Your task to perform on an android device: Open Google Maps and go to "Timeline" Image 0: 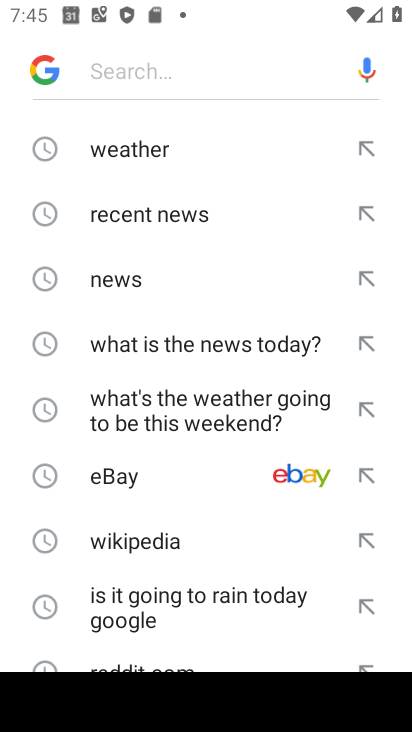
Step 0: press home button
Your task to perform on an android device: Open Google Maps and go to "Timeline" Image 1: 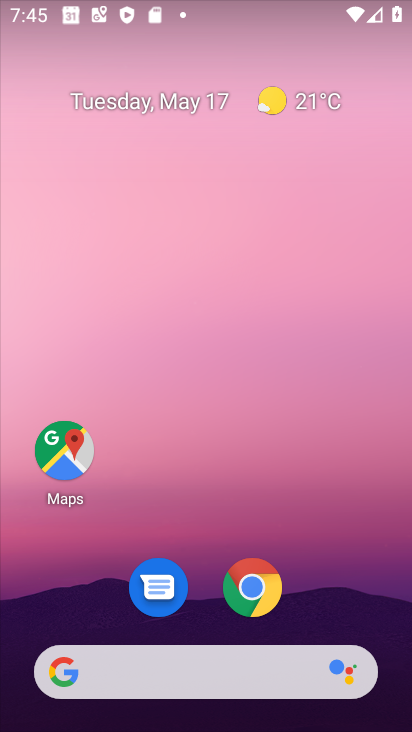
Step 1: drag from (360, 605) to (367, 298)
Your task to perform on an android device: Open Google Maps and go to "Timeline" Image 2: 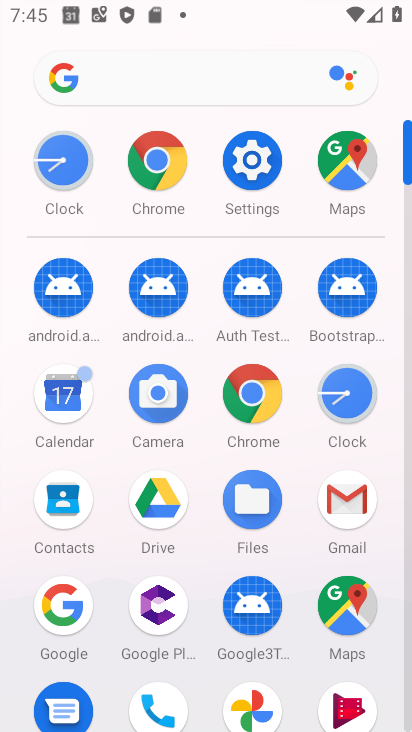
Step 2: click (376, 616)
Your task to perform on an android device: Open Google Maps and go to "Timeline" Image 3: 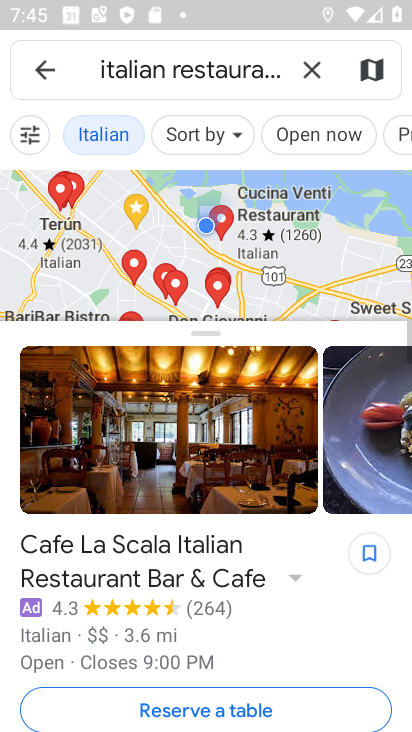
Step 3: click (43, 76)
Your task to perform on an android device: Open Google Maps and go to "Timeline" Image 4: 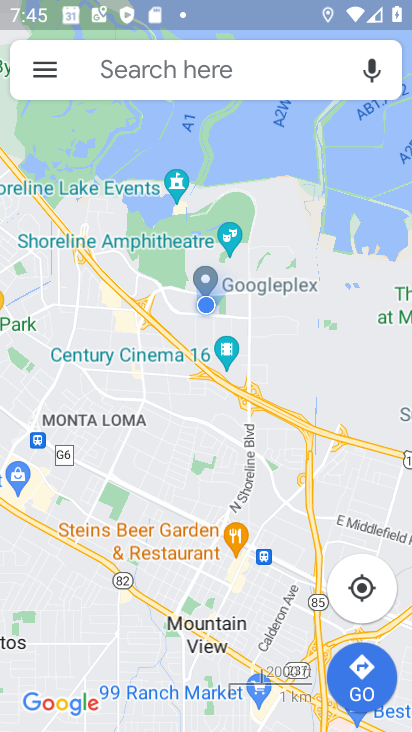
Step 4: click (43, 76)
Your task to perform on an android device: Open Google Maps and go to "Timeline" Image 5: 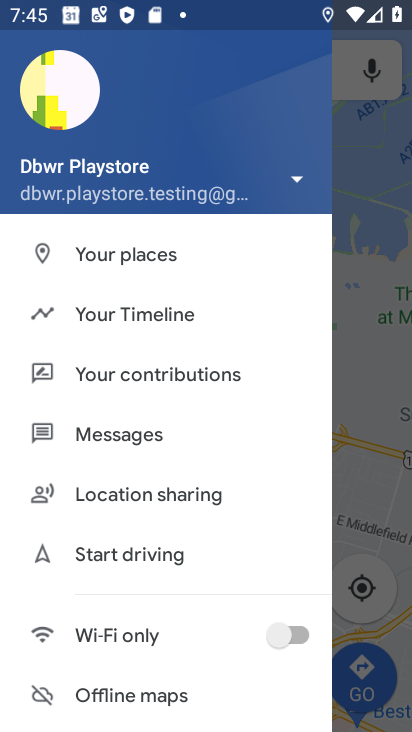
Step 5: drag from (249, 545) to (276, 390)
Your task to perform on an android device: Open Google Maps and go to "Timeline" Image 6: 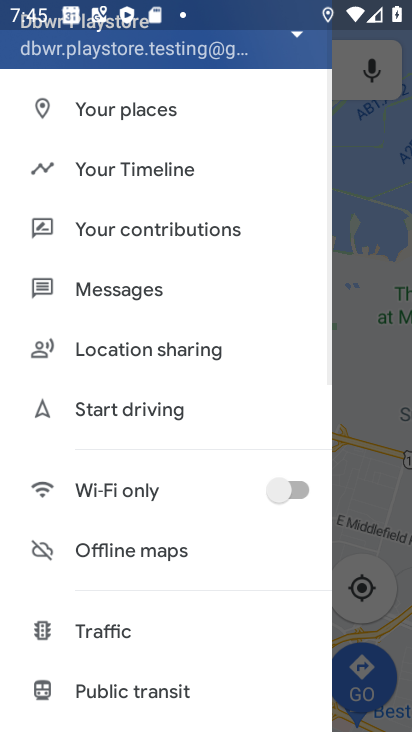
Step 6: drag from (236, 606) to (267, 397)
Your task to perform on an android device: Open Google Maps and go to "Timeline" Image 7: 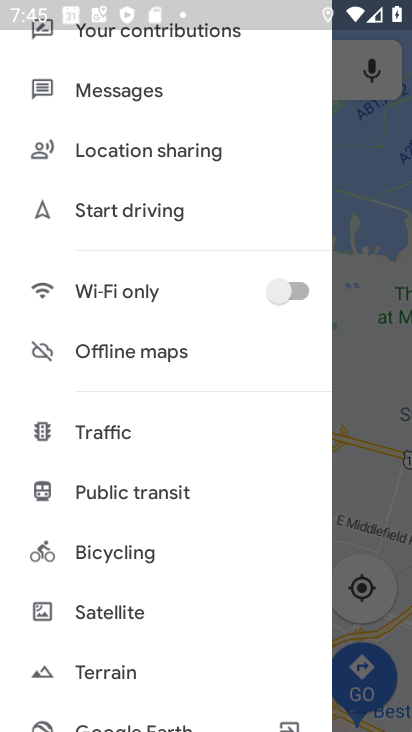
Step 7: drag from (250, 619) to (237, 394)
Your task to perform on an android device: Open Google Maps and go to "Timeline" Image 8: 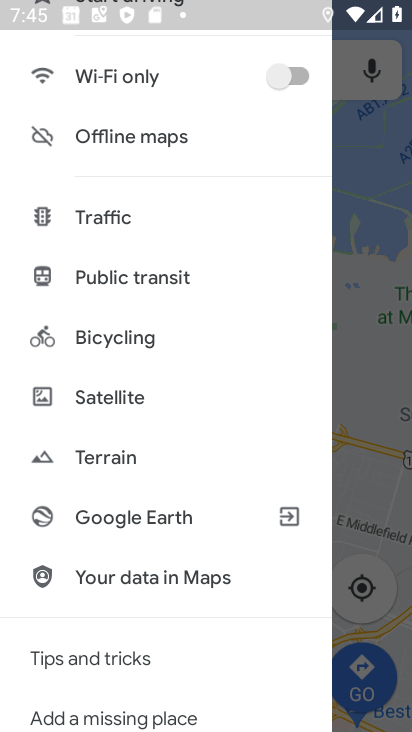
Step 8: drag from (245, 644) to (243, 482)
Your task to perform on an android device: Open Google Maps and go to "Timeline" Image 9: 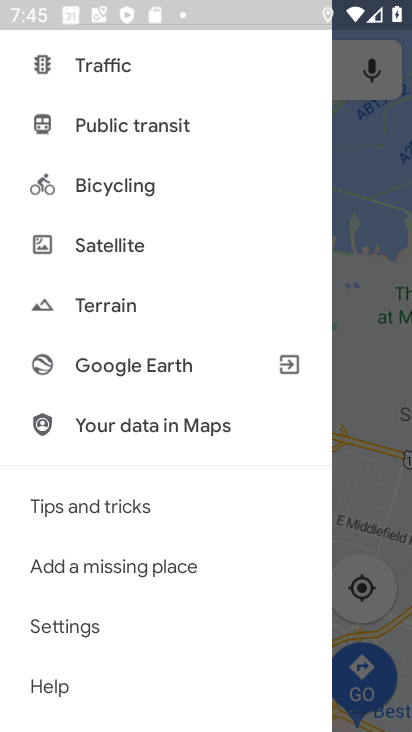
Step 9: drag from (238, 637) to (235, 486)
Your task to perform on an android device: Open Google Maps and go to "Timeline" Image 10: 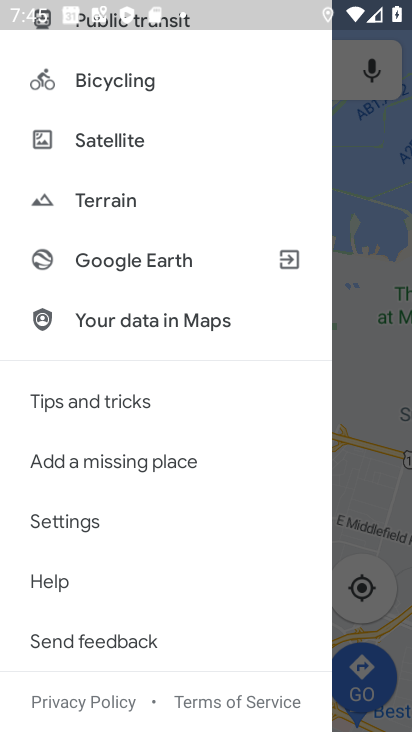
Step 10: drag from (231, 234) to (231, 407)
Your task to perform on an android device: Open Google Maps and go to "Timeline" Image 11: 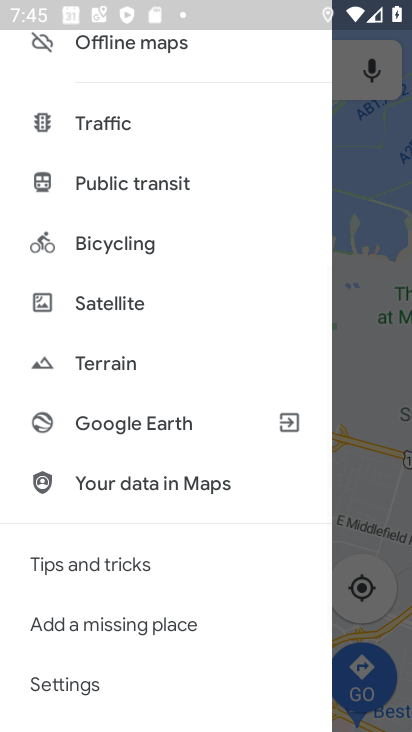
Step 11: drag from (244, 238) to (245, 392)
Your task to perform on an android device: Open Google Maps and go to "Timeline" Image 12: 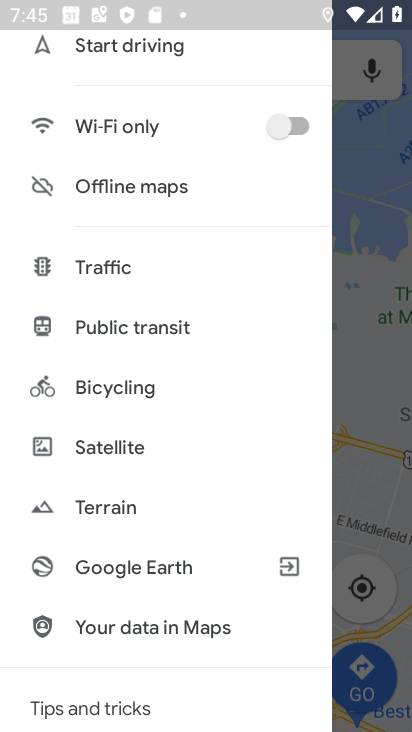
Step 12: drag from (244, 237) to (246, 395)
Your task to perform on an android device: Open Google Maps and go to "Timeline" Image 13: 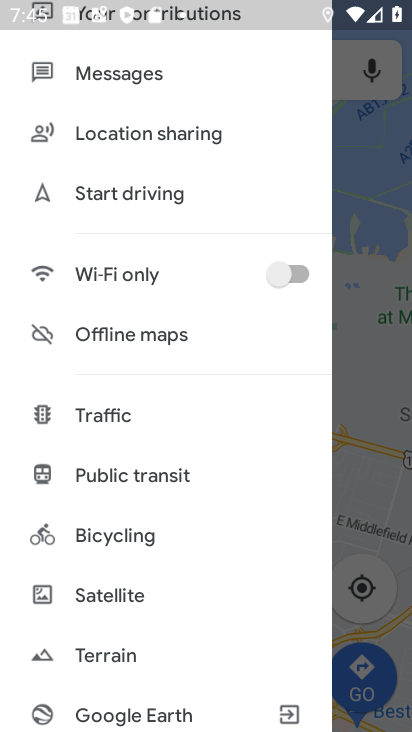
Step 13: drag from (233, 198) to (215, 402)
Your task to perform on an android device: Open Google Maps and go to "Timeline" Image 14: 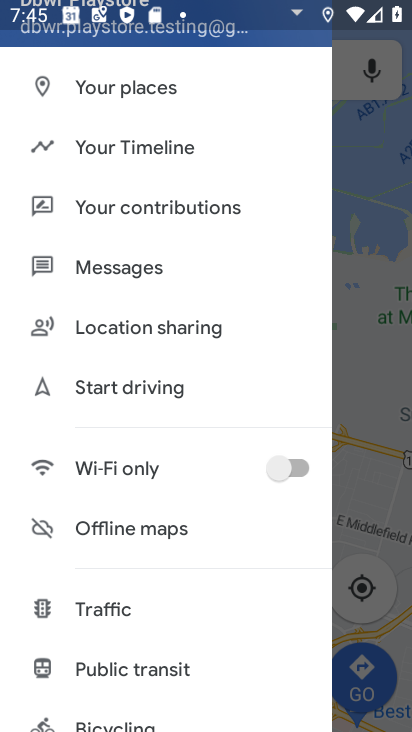
Step 14: drag from (247, 171) to (249, 354)
Your task to perform on an android device: Open Google Maps and go to "Timeline" Image 15: 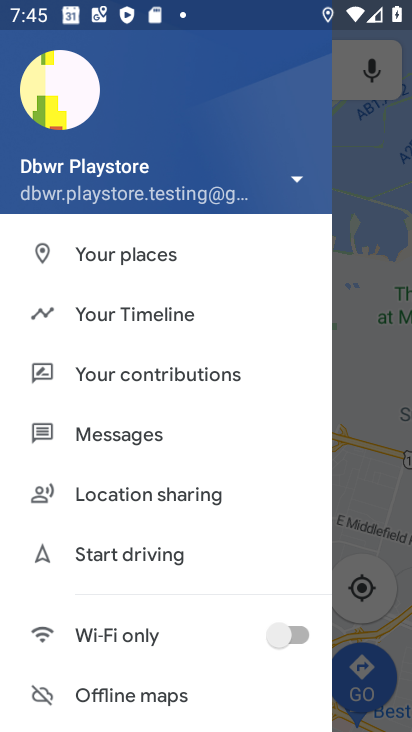
Step 15: click (162, 317)
Your task to perform on an android device: Open Google Maps and go to "Timeline" Image 16: 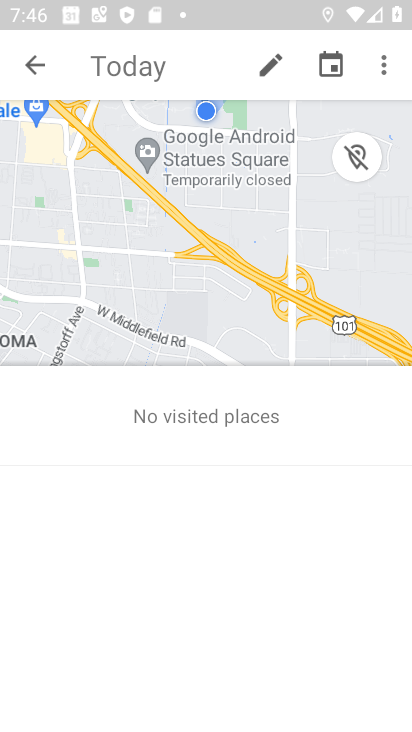
Step 16: task complete